Your task to perform on an android device: Look up the new steph curry shoes Image 0: 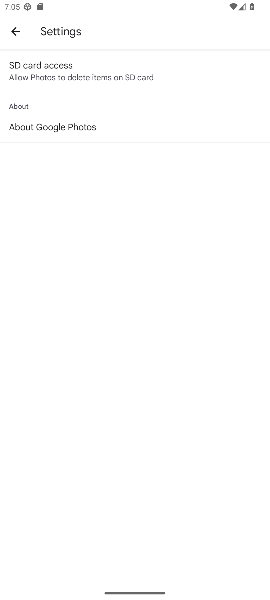
Step 0: press home button
Your task to perform on an android device: Look up the new steph curry shoes Image 1: 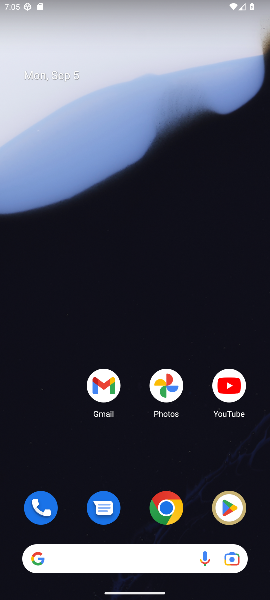
Step 1: click (169, 513)
Your task to perform on an android device: Look up the new steph curry shoes Image 2: 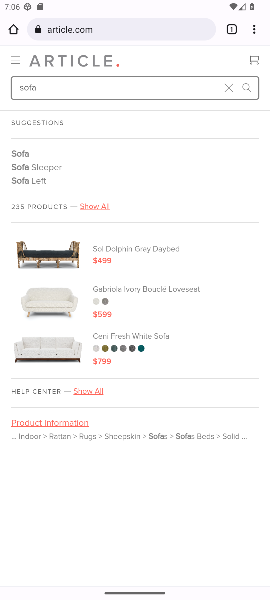
Step 2: click (123, 32)
Your task to perform on an android device: Look up the new steph curry shoes Image 3: 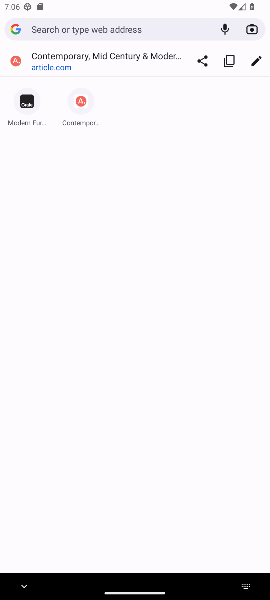
Step 3: type "new steph curry shoes"
Your task to perform on an android device: Look up the new steph curry shoes Image 4: 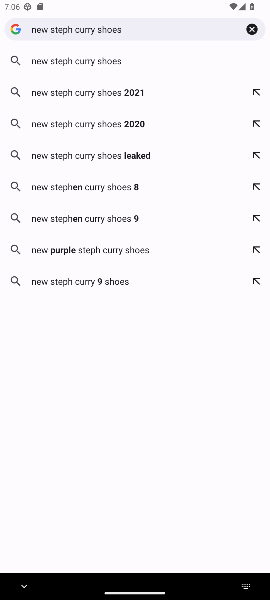
Step 4: click (65, 66)
Your task to perform on an android device: Look up the new steph curry shoes Image 5: 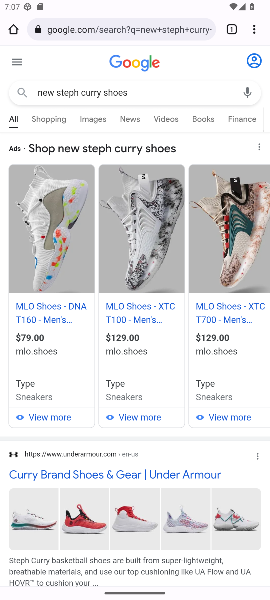
Step 5: task complete